Your task to perform on an android device: Go to Google maps Image 0: 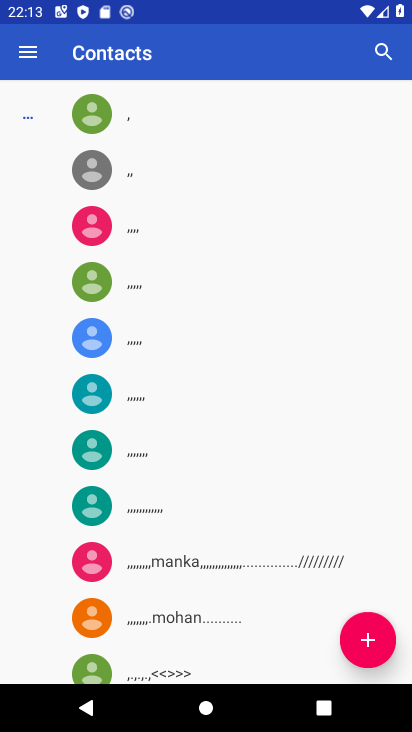
Step 0: press home button
Your task to perform on an android device: Go to Google maps Image 1: 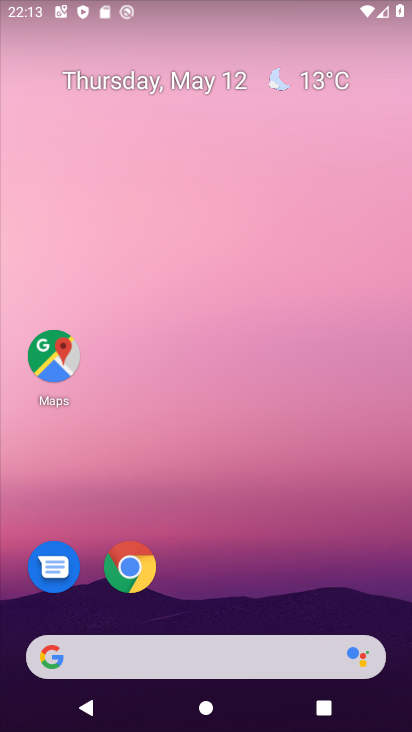
Step 1: click (55, 351)
Your task to perform on an android device: Go to Google maps Image 2: 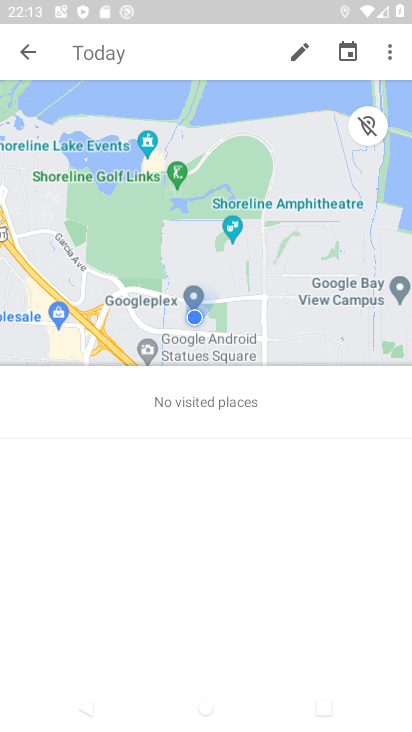
Step 2: click (31, 56)
Your task to perform on an android device: Go to Google maps Image 3: 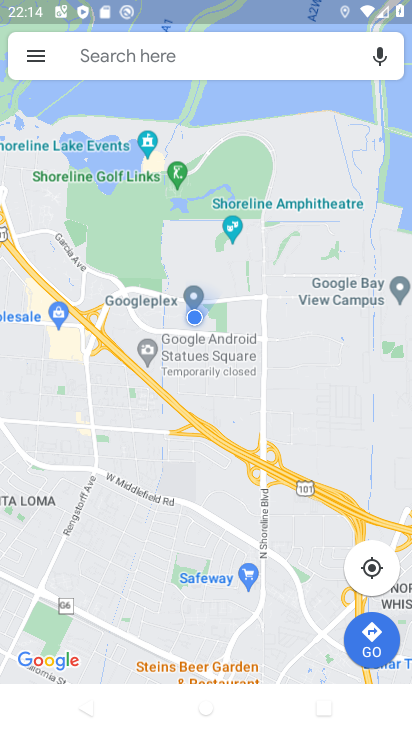
Step 3: task complete